Your task to perform on an android device: toggle translation in the chrome app Image 0: 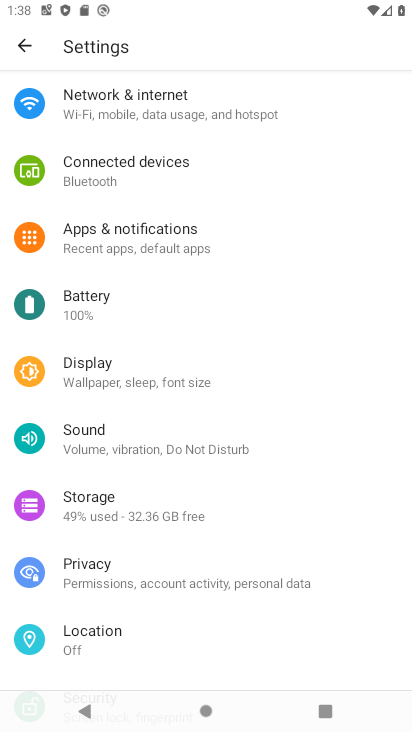
Step 0: press home button
Your task to perform on an android device: toggle translation in the chrome app Image 1: 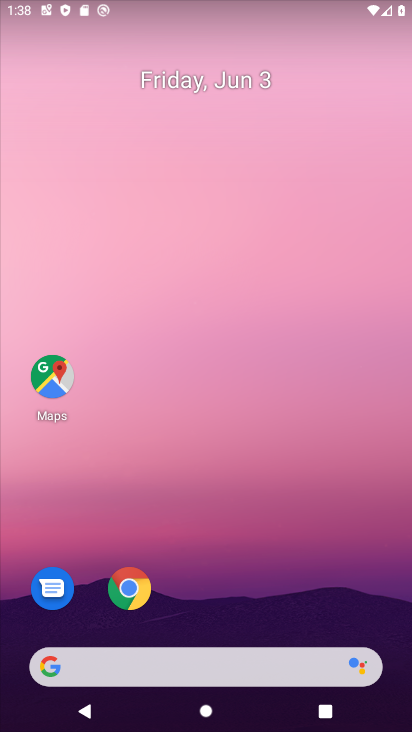
Step 1: click (135, 584)
Your task to perform on an android device: toggle translation in the chrome app Image 2: 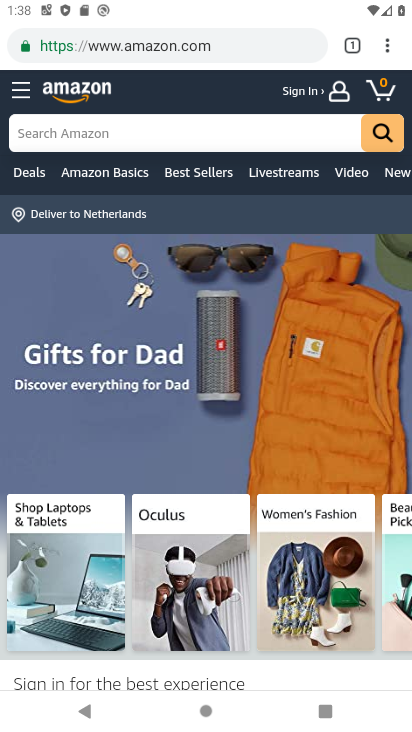
Step 2: click (383, 42)
Your task to perform on an android device: toggle translation in the chrome app Image 3: 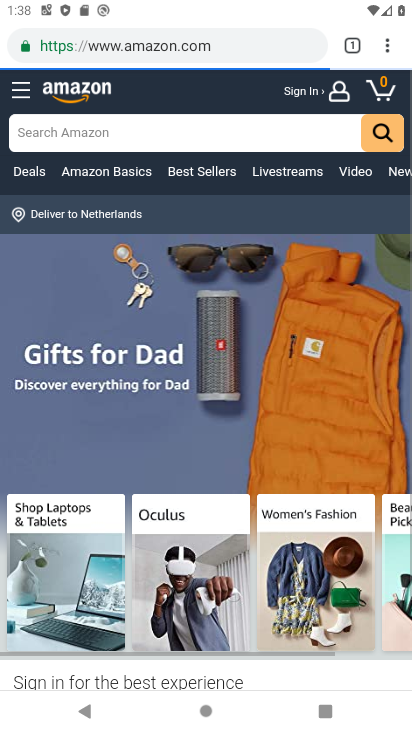
Step 3: click (383, 42)
Your task to perform on an android device: toggle translation in the chrome app Image 4: 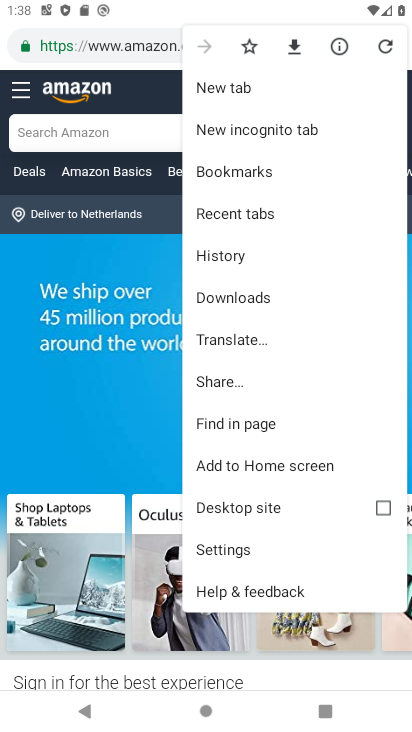
Step 4: click (240, 551)
Your task to perform on an android device: toggle translation in the chrome app Image 5: 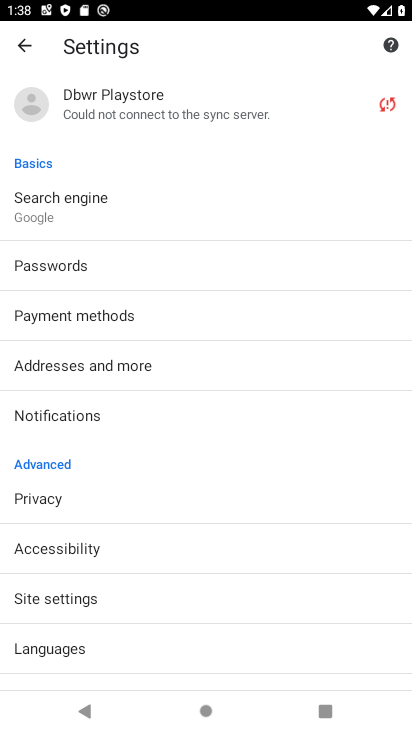
Step 5: click (57, 645)
Your task to perform on an android device: toggle translation in the chrome app Image 6: 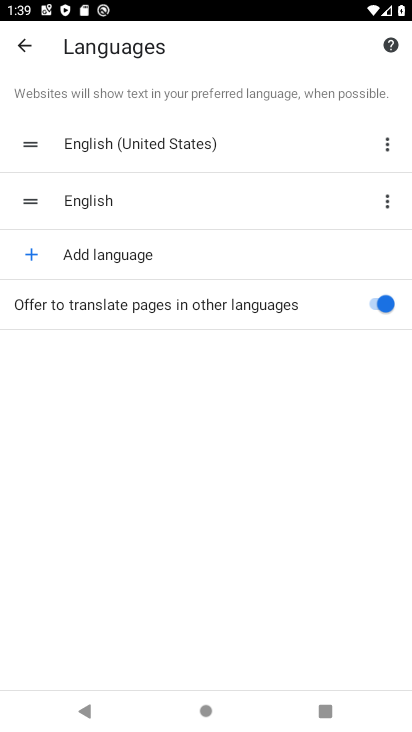
Step 6: click (391, 301)
Your task to perform on an android device: toggle translation in the chrome app Image 7: 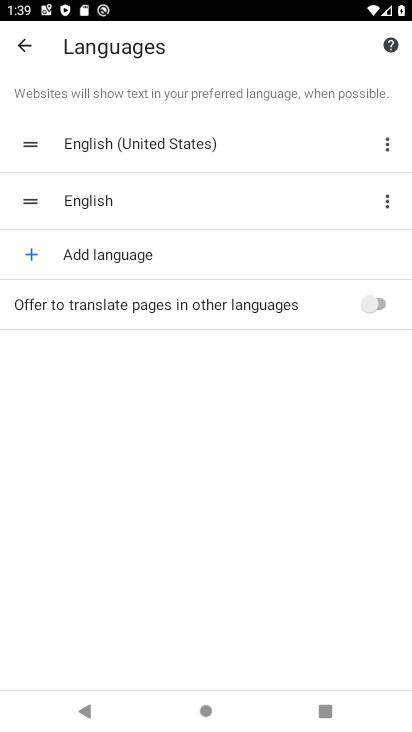
Step 7: task complete